Your task to perform on an android device: turn notification dots off Image 0: 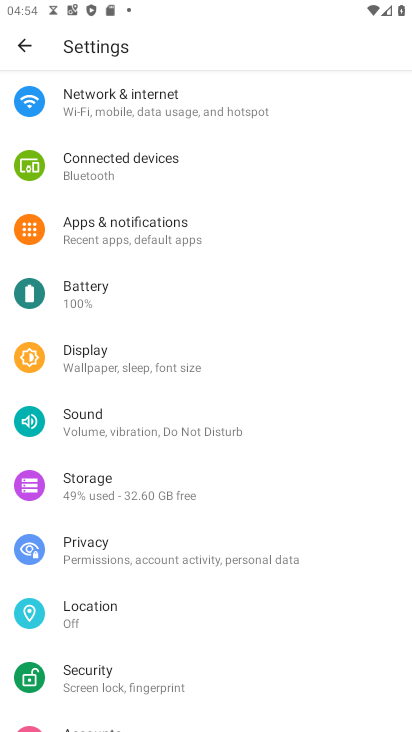
Step 0: click (153, 223)
Your task to perform on an android device: turn notification dots off Image 1: 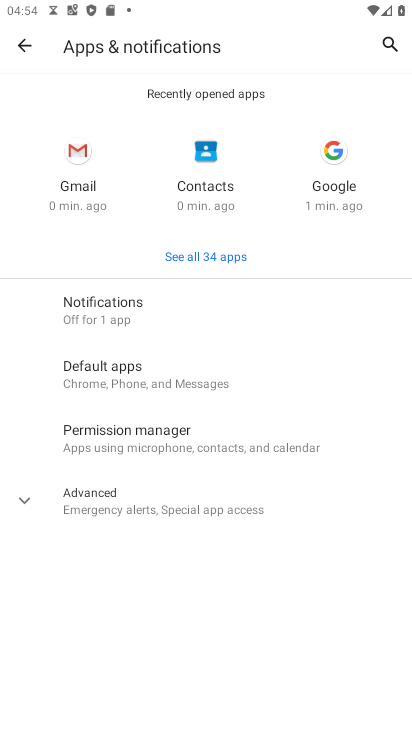
Step 1: click (82, 314)
Your task to perform on an android device: turn notification dots off Image 2: 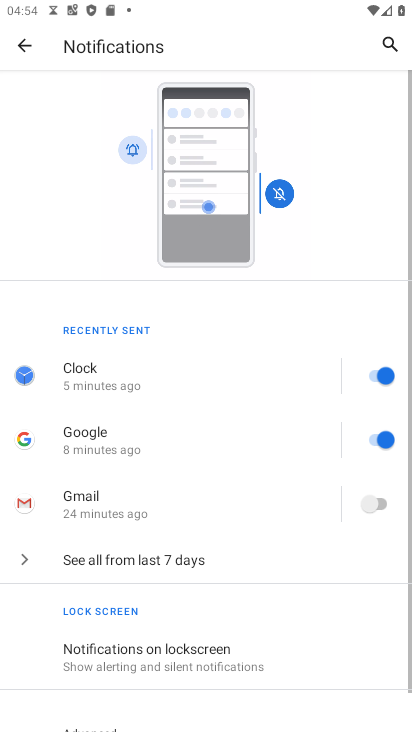
Step 2: drag from (246, 609) to (260, 261)
Your task to perform on an android device: turn notification dots off Image 3: 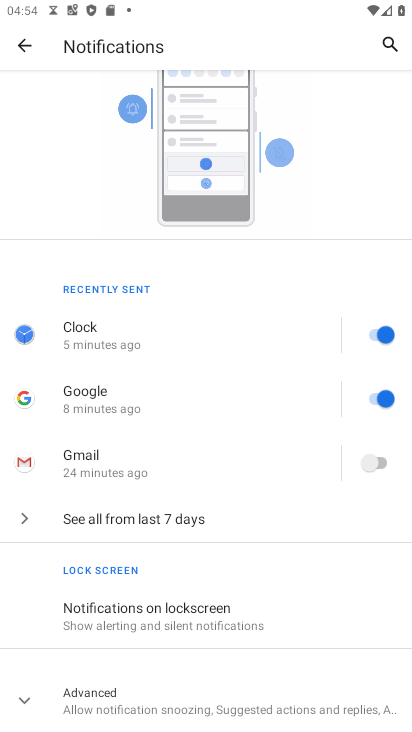
Step 3: click (89, 713)
Your task to perform on an android device: turn notification dots off Image 4: 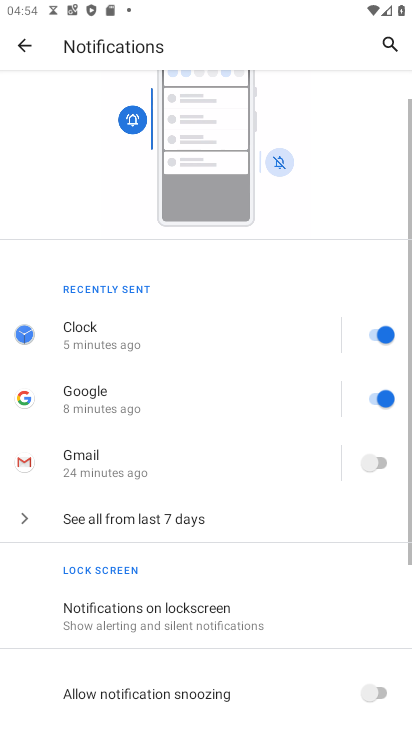
Step 4: task complete